Your task to perform on an android device: delete the emails in spam in the gmail app Image 0: 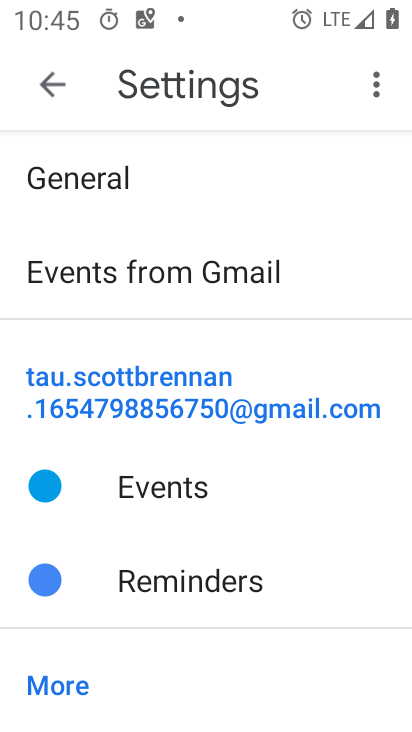
Step 0: click (43, 85)
Your task to perform on an android device: delete the emails in spam in the gmail app Image 1: 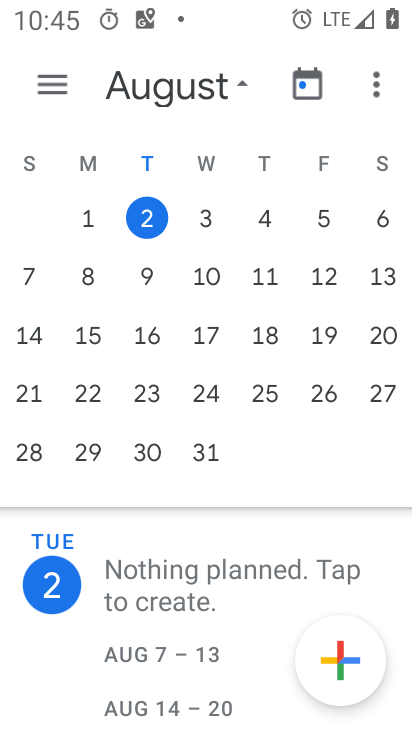
Step 1: press home button
Your task to perform on an android device: delete the emails in spam in the gmail app Image 2: 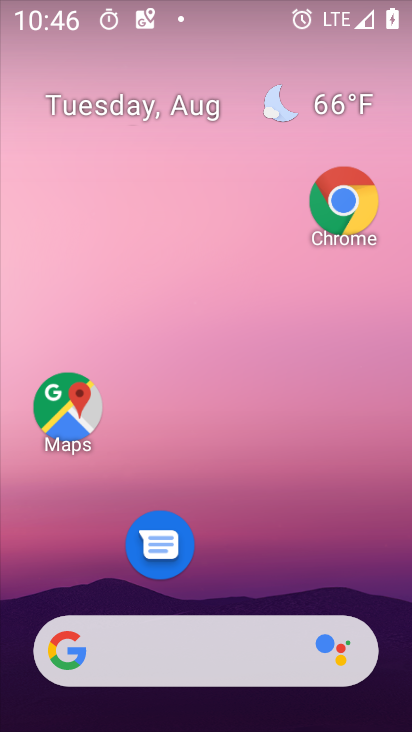
Step 2: drag from (217, 681) to (217, 161)
Your task to perform on an android device: delete the emails in spam in the gmail app Image 3: 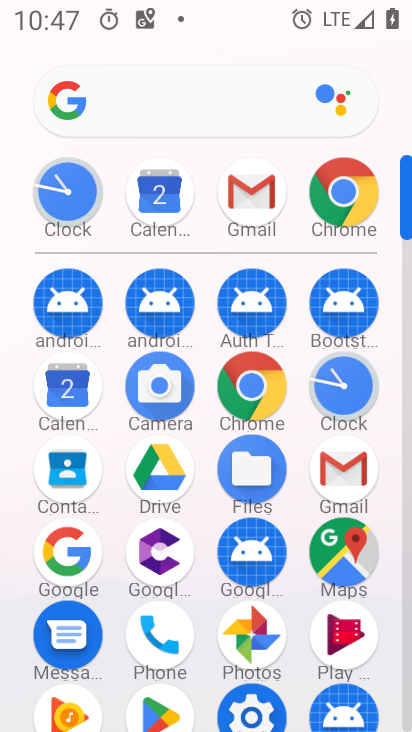
Step 3: click (332, 465)
Your task to perform on an android device: delete the emails in spam in the gmail app Image 4: 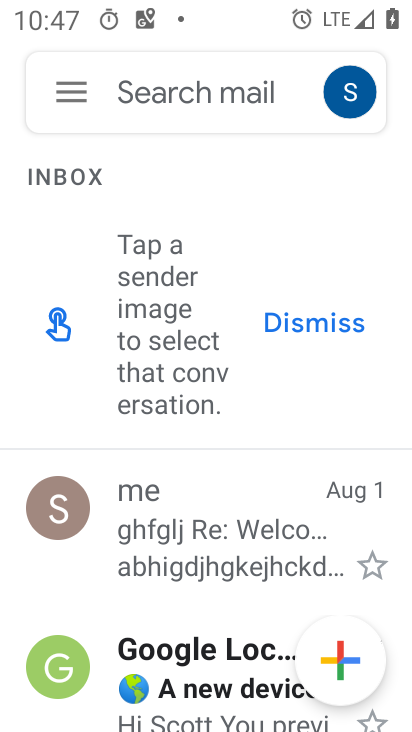
Step 4: click (165, 571)
Your task to perform on an android device: delete the emails in spam in the gmail app Image 5: 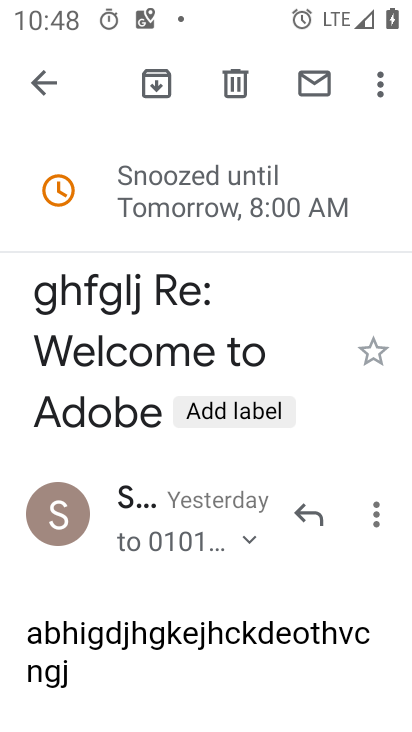
Step 5: click (245, 95)
Your task to perform on an android device: delete the emails in spam in the gmail app Image 6: 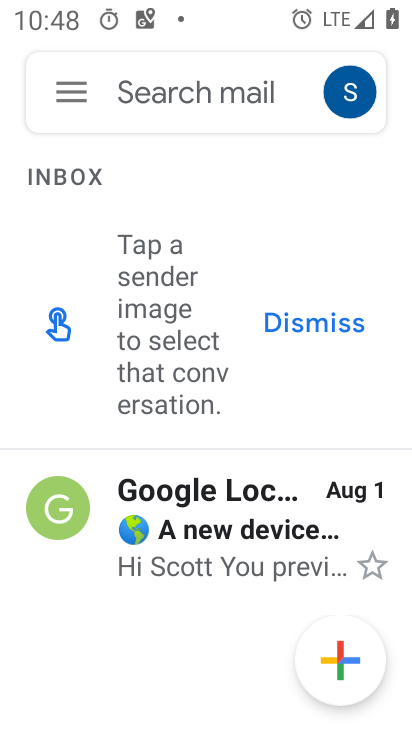
Step 6: task complete